Your task to perform on an android device: open app "Google Photos" Image 0: 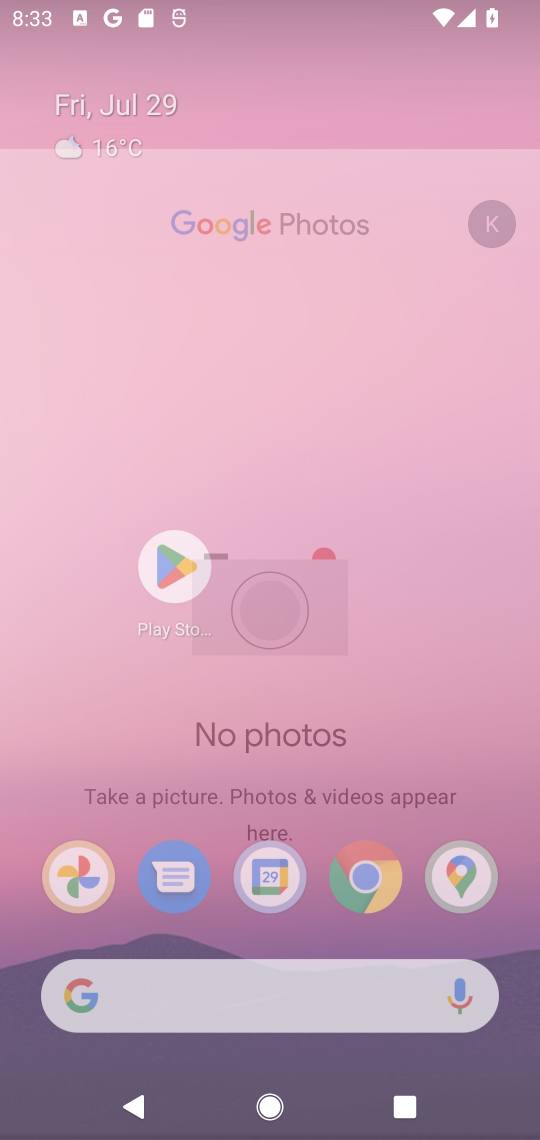
Step 0: press home button
Your task to perform on an android device: open app "Google Photos" Image 1: 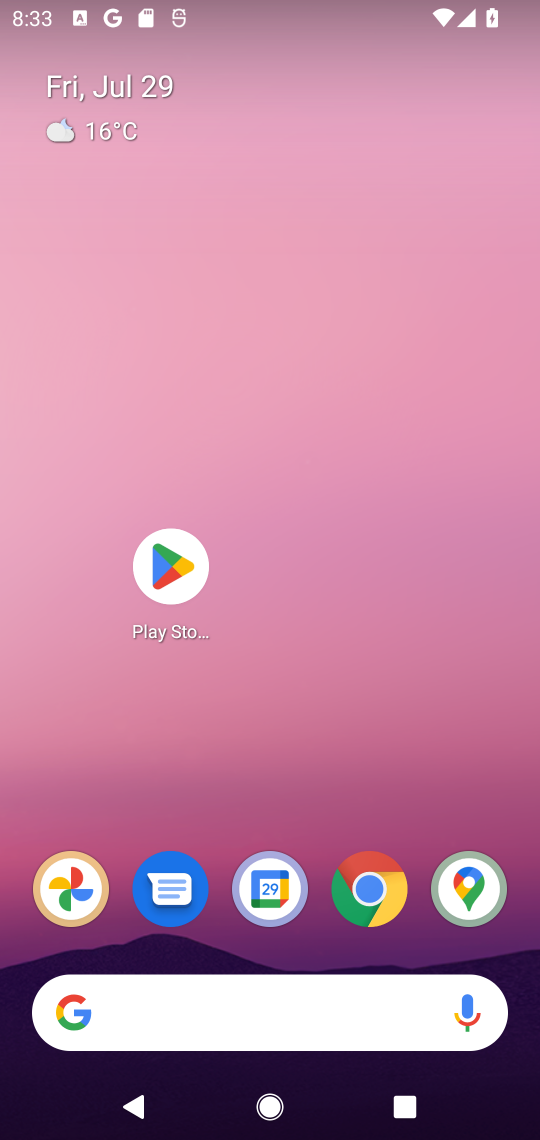
Step 1: press home button
Your task to perform on an android device: open app "Google Photos" Image 2: 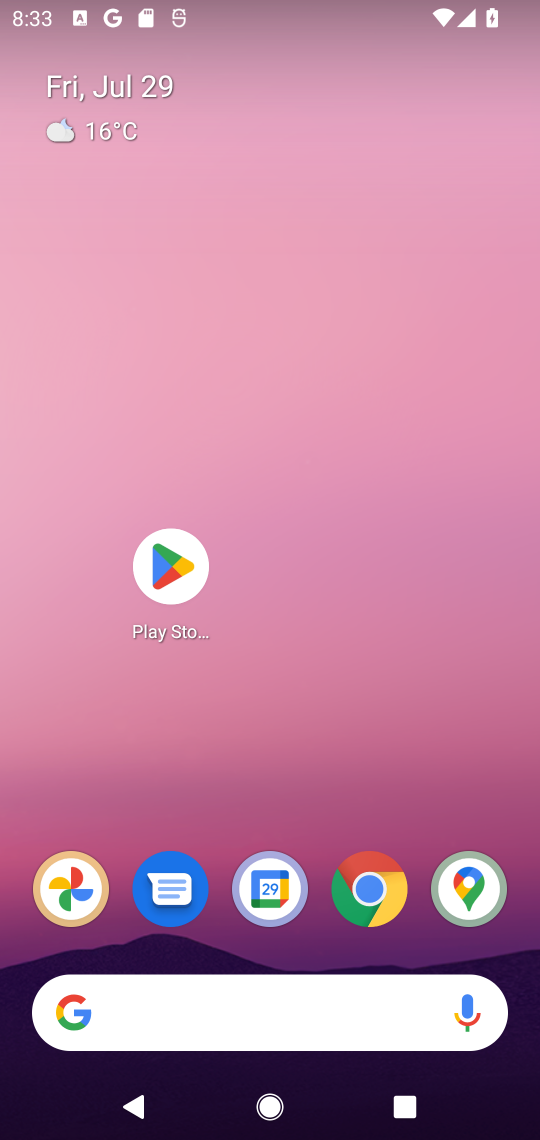
Step 2: click (171, 570)
Your task to perform on an android device: open app "Google Photos" Image 3: 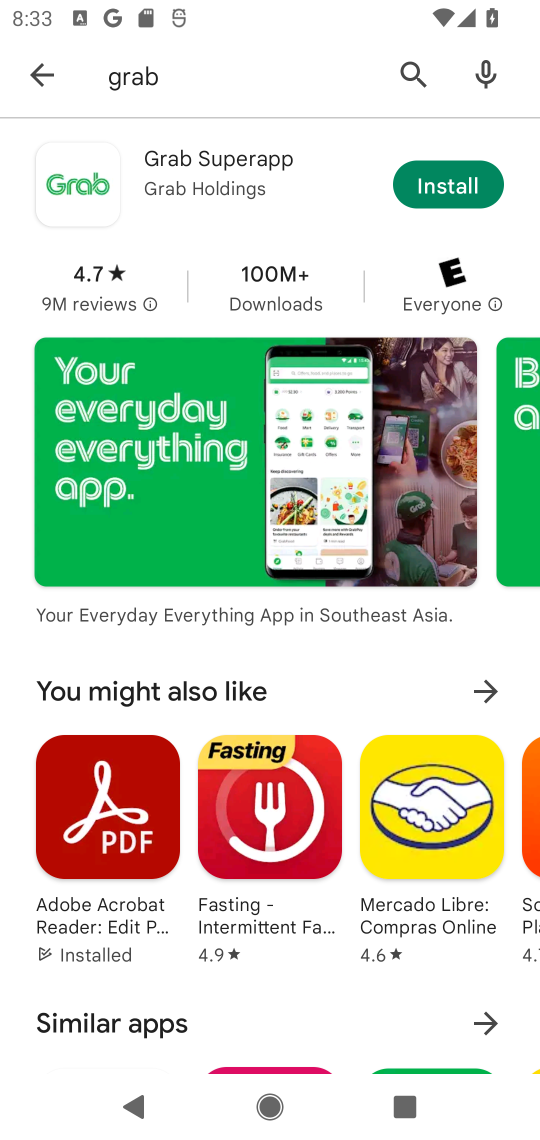
Step 3: click (412, 69)
Your task to perform on an android device: open app "Google Photos" Image 4: 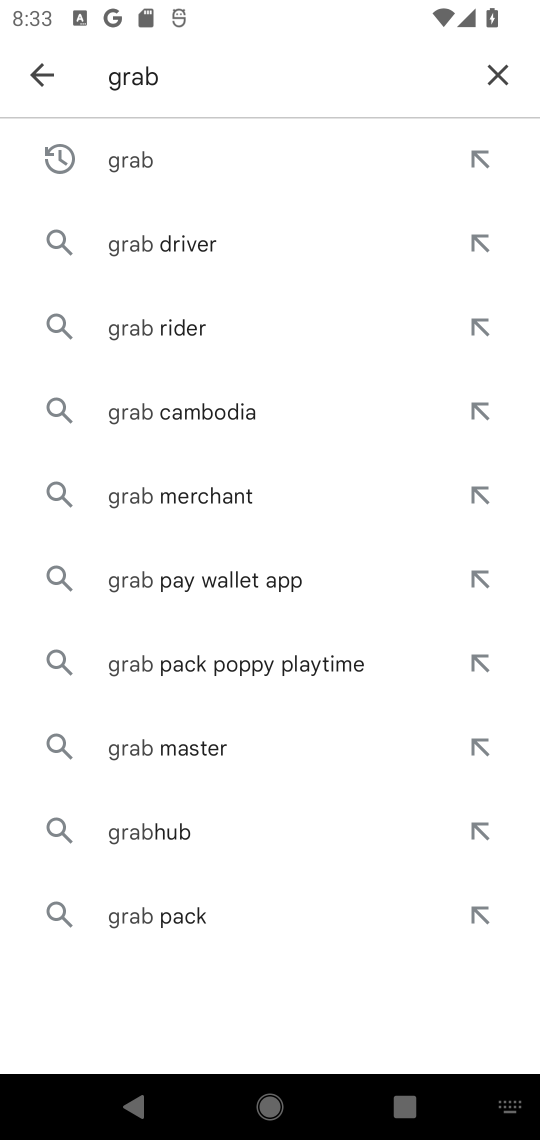
Step 4: click (488, 77)
Your task to perform on an android device: open app "Google Photos" Image 5: 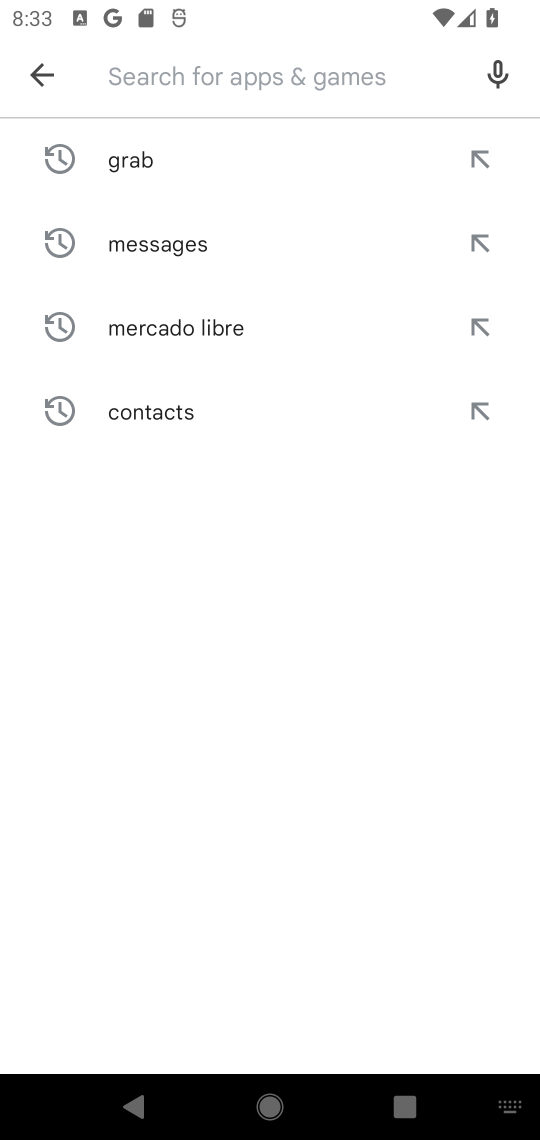
Step 5: type "Google Photos"
Your task to perform on an android device: open app "Google Photos" Image 6: 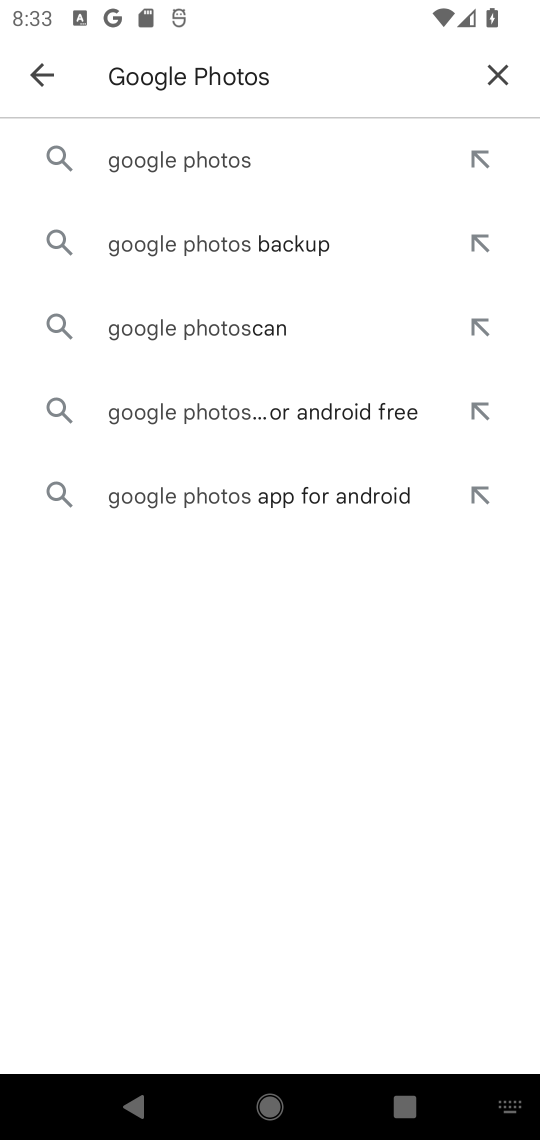
Step 6: click (207, 165)
Your task to perform on an android device: open app "Google Photos" Image 7: 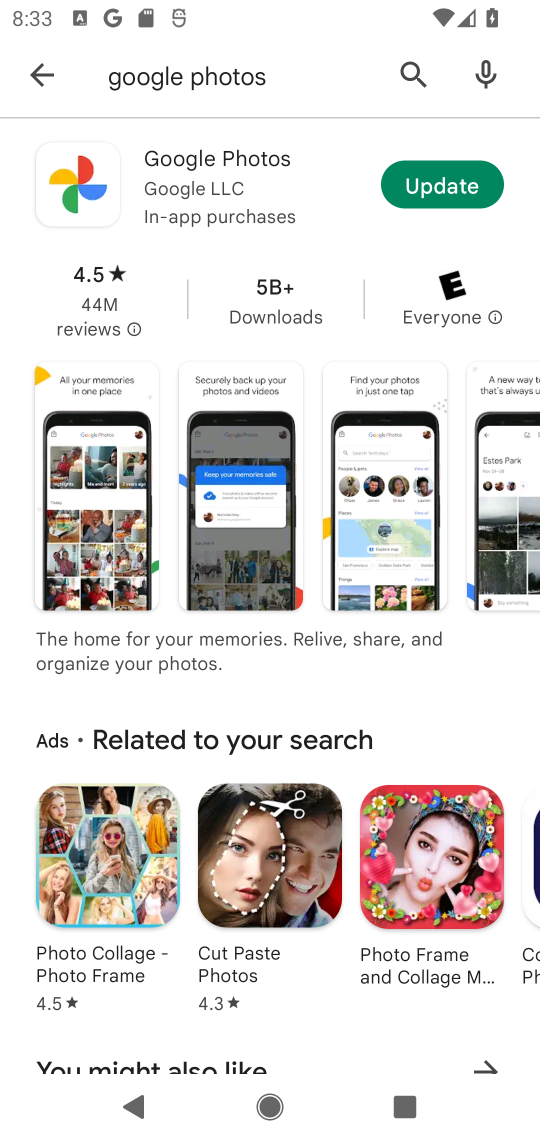
Step 7: task complete